Your task to perform on an android device: Open internet settings Image 0: 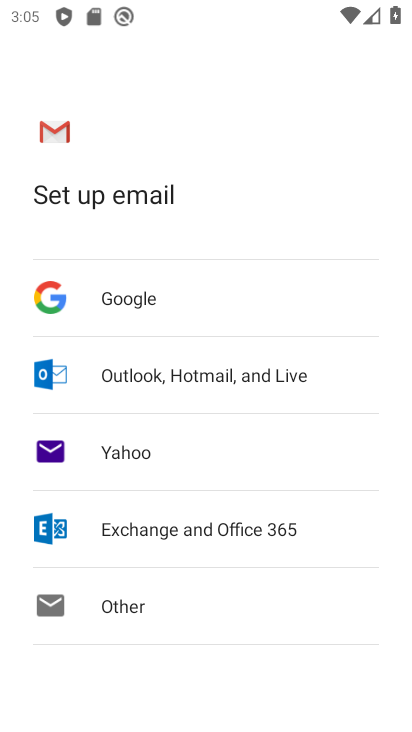
Step 0: press home button
Your task to perform on an android device: Open internet settings Image 1: 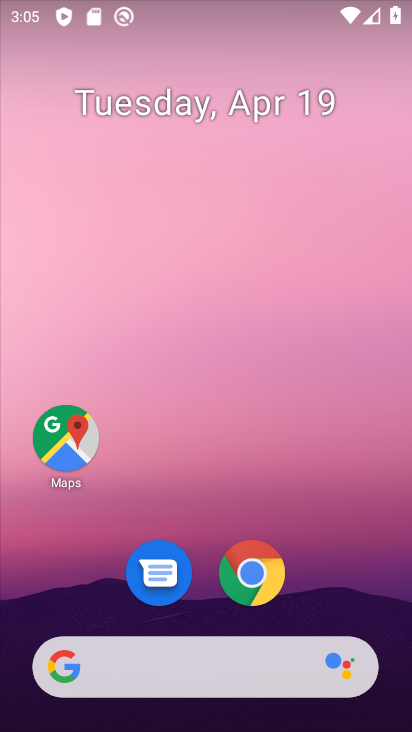
Step 1: drag from (298, 457) to (280, 309)
Your task to perform on an android device: Open internet settings Image 2: 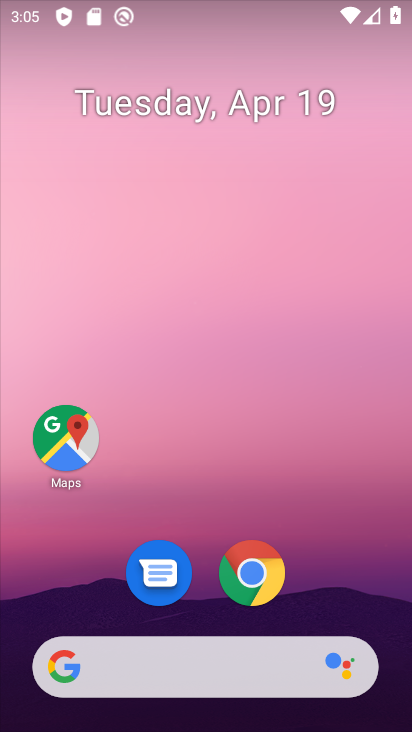
Step 2: drag from (310, 578) to (299, 171)
Your task to perform on an android device: Open internet settings Image 3: 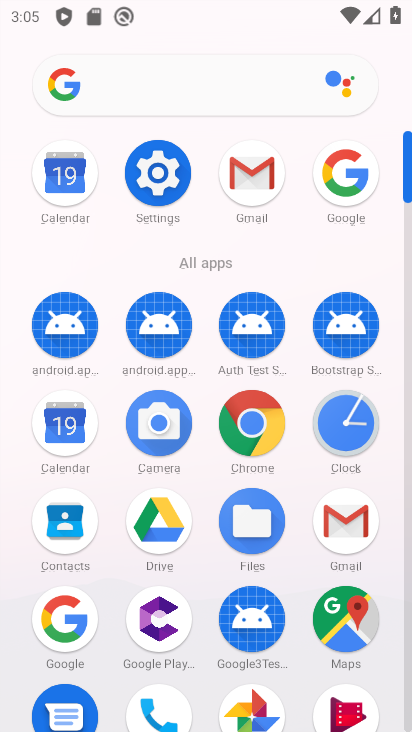
Step 3: click (160, 197)
Your task to perform on an android device: Open internet settings Image 4: 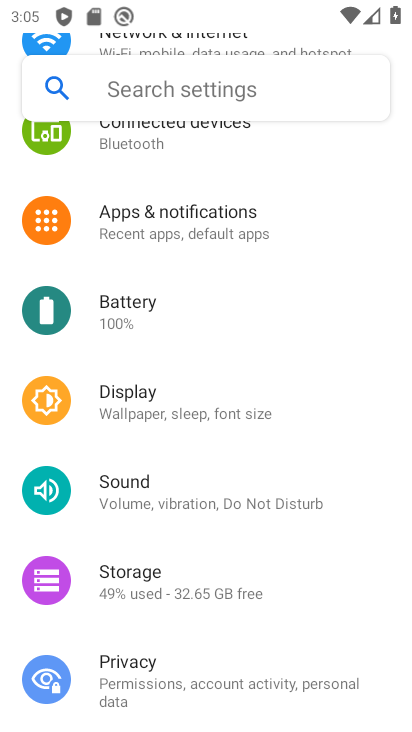
Step 4: drag from (194, 186) to (159, 651)
Your task to perform on an android device: Open internet settings Image 5: 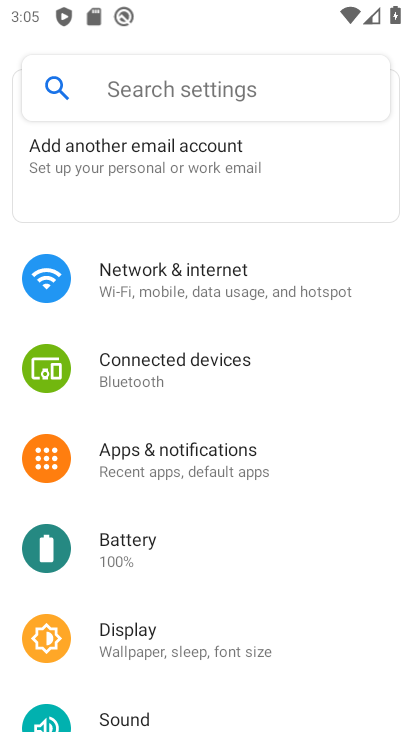
Step 5: click (186, 297)
Your task to perform on an android device: Open internet settings Image 6: 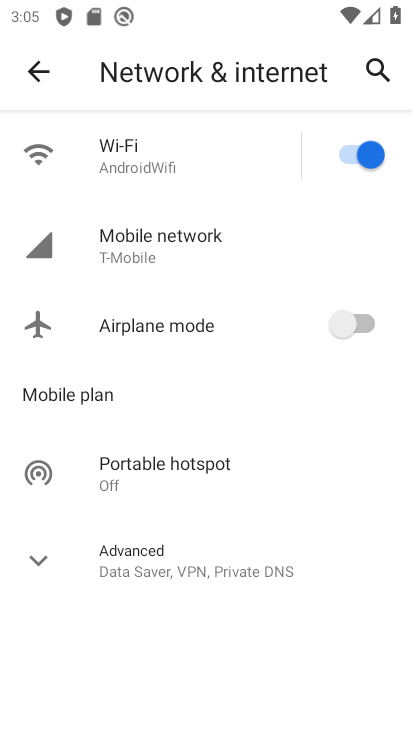
Step 6: task complete